Your task to perform on an android device: turn pop-ups off in chrome Image 0: 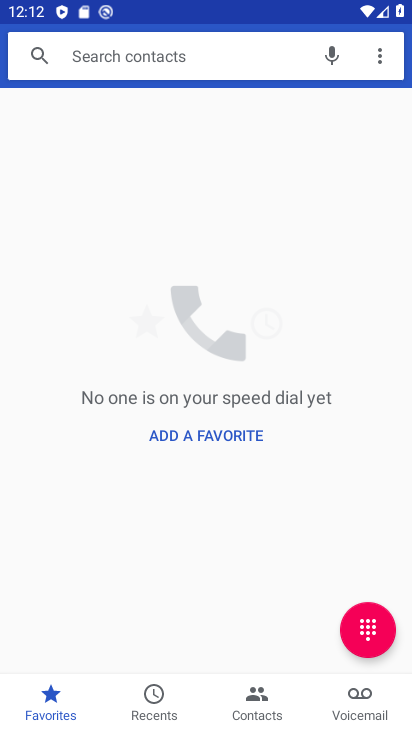
Step 0: press home button
Your task to perform on an android device: turn pop-ups off in chrome Image 1: 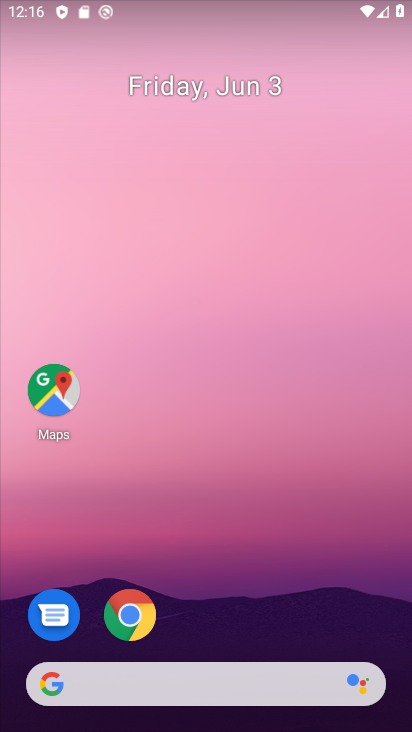
Step 1: click (140, 623)
Your task to perform on an android device: turn pop-ups off in chrome Image 2: 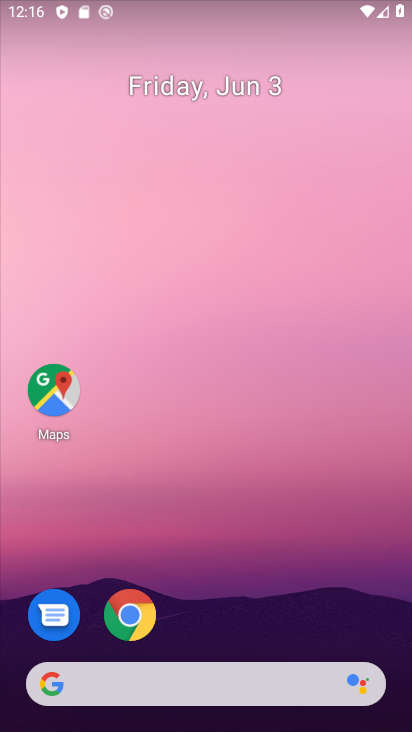
Step 2: click (140, 623)
Your task to perform on an android device: turn pop-ups off in chrome Image 3: 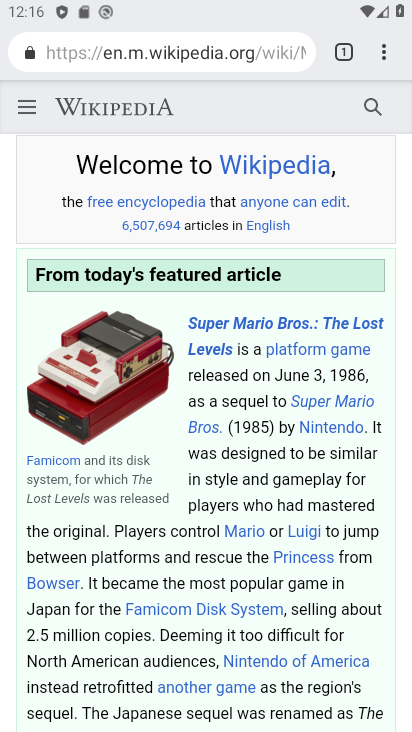
Step 3: click (385, 51)
Your task to perform on an android device: turn pop-ups off in chrome Image 4: 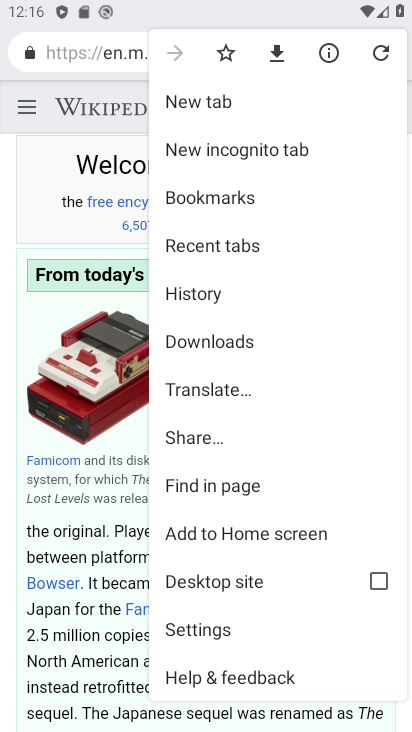
Step 4: click (276, 626)
Your task to perform on an android device: turn pop-ups off in chrome Image 5: 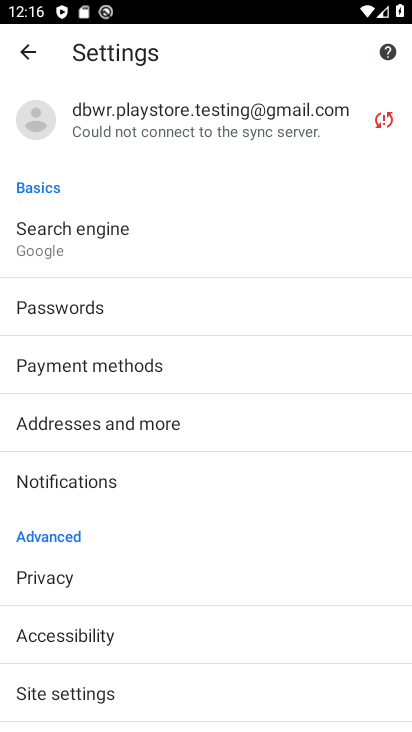
Step 5: click (245, 691)
Your task to perform on an android device: turn pop-ups off in chrome Image 6: 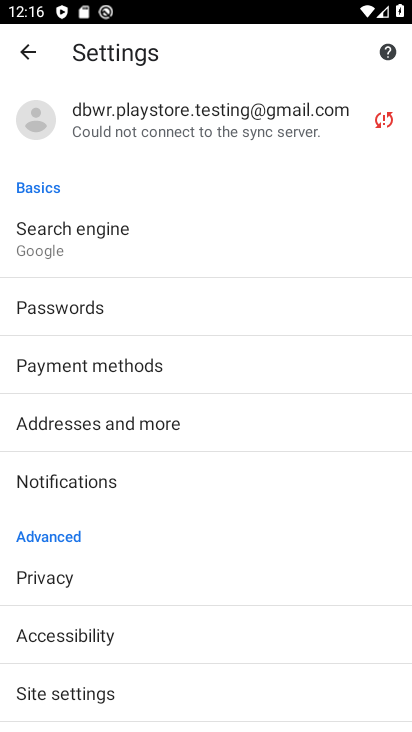
Step 6: click (245, 691)
Your task to perform on an android device: turn pop-ups off in chrome Image 7: 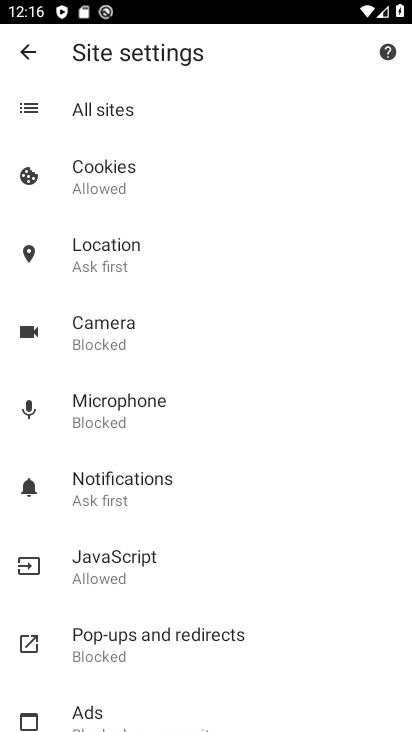
Step 7: click (265, 636)
Your task to perform on an android device: turn pop-ups off in chrome Image 8: 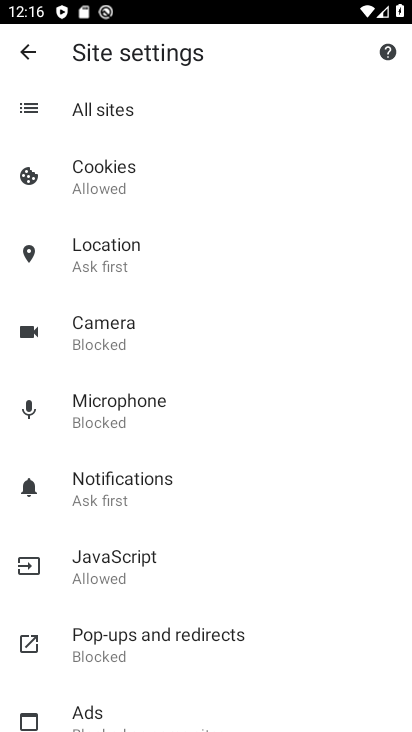
Step 8: click (265, 636)
Your task to perform on an android device: turn pop-ups off in chrome Image 9: 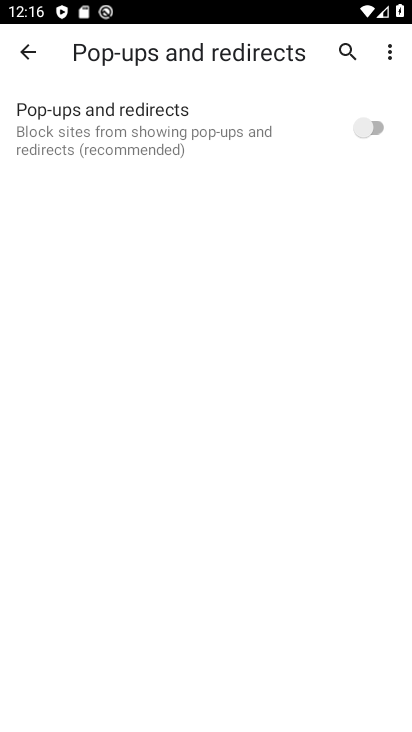
Step 9: task complete